Your task to perform on an android device: turn off notifications settings in the gmail app Image 0: 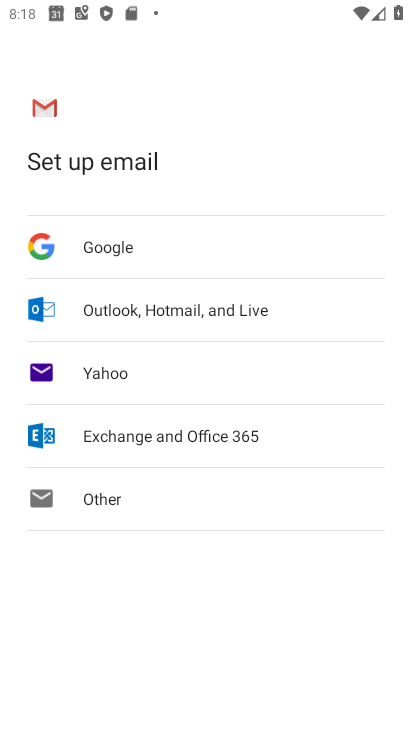
Step 0: press home button
Your task to perform on an android device: turn off notifications settings in the gmail app Image 1: 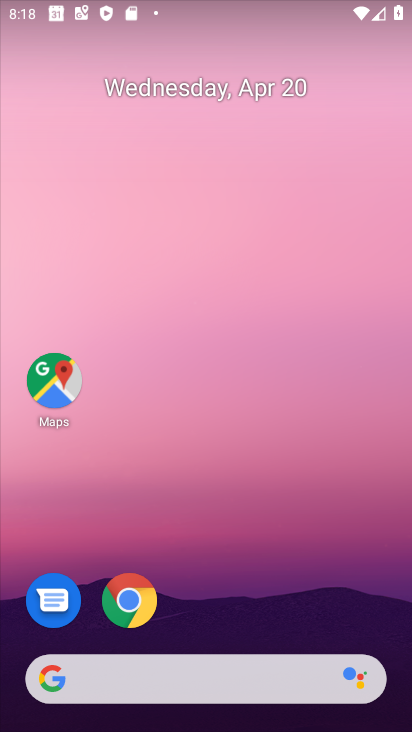
Step 1: drag from (204, 607) to (282, 180)
Your task to perform on an android device: turn off notifications settings in the gmail app Image 2: 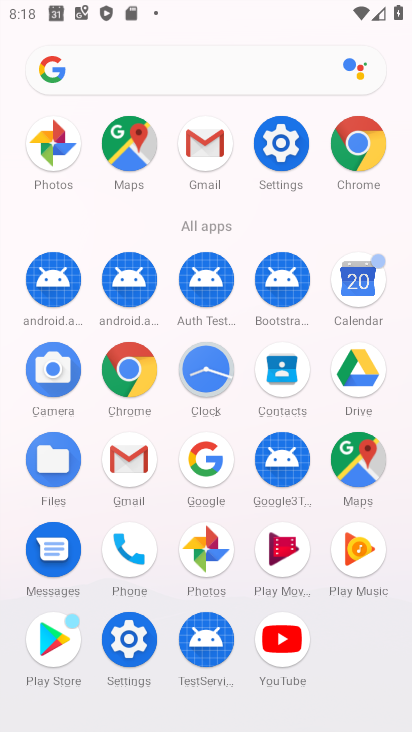
Step 2: click (201, 157)
Your task to perform on an android device: turn off notifications settings in the gmail app Image 3: 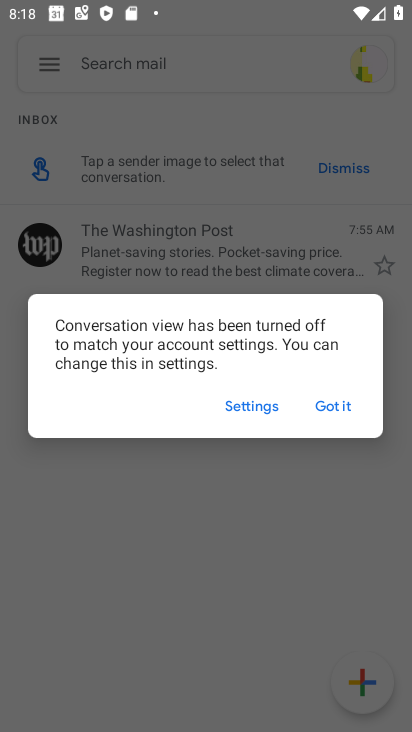
Step 3: click (342, 400)
Your task to perform on an android device: turn off notifications settings in the gmail app Image 4: 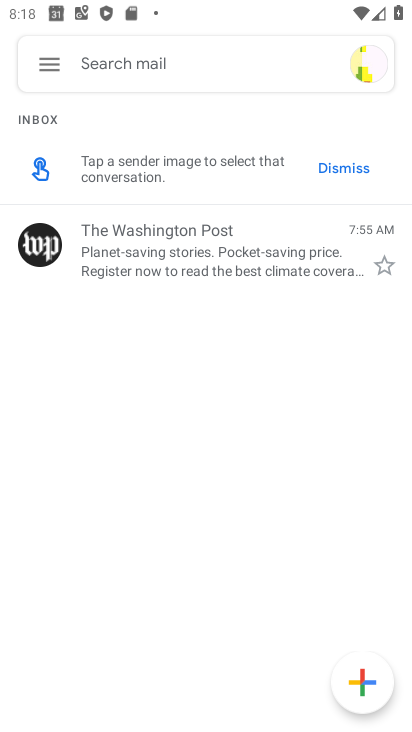
Step 4: click (42, 68)
Your task to perform on an android device: turn off notifications settings in the gmail app Image 5: 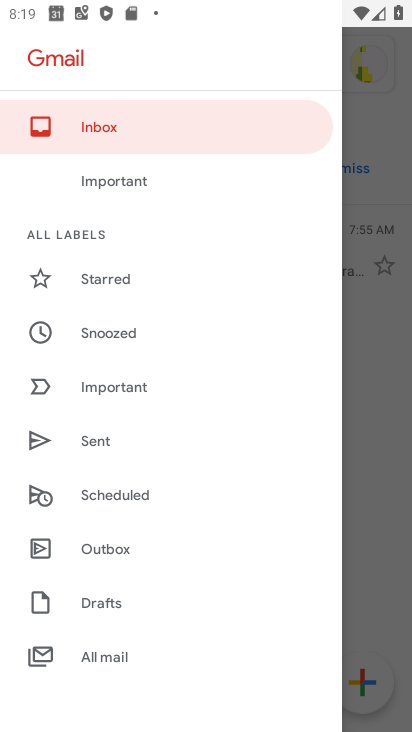
Step 5: drag from (164, 663) to (196, 166)
Your task to perform on an android device: turn off notifications settings in the gmail app Image 6: 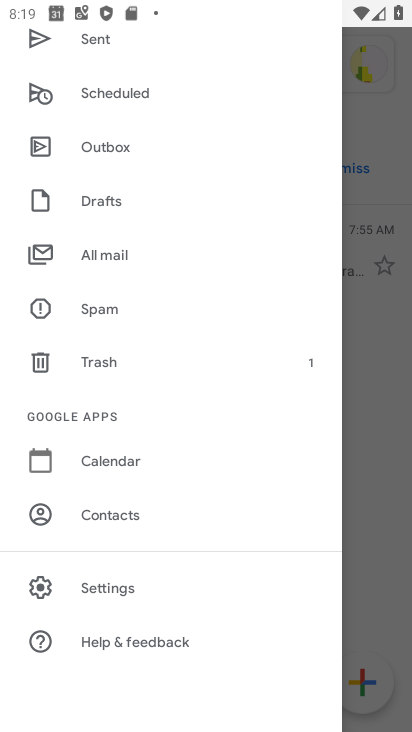
Step 6: click (95, 592)
Your task to perform on an android device: turn off notifications settings in the gmail app Image 7: 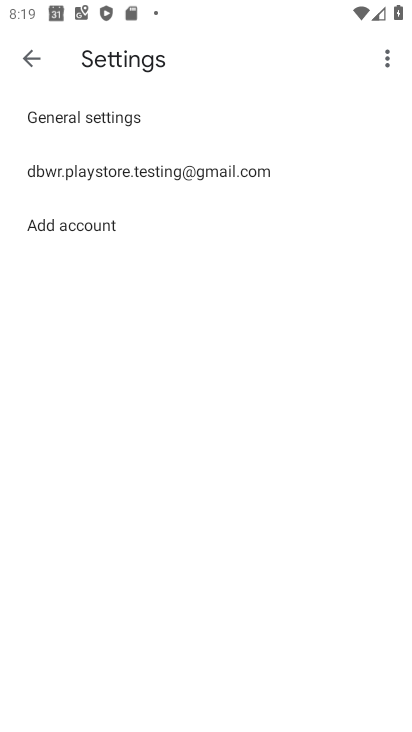
Step 7: click (100, 172)
Your task to perform on an android device: turn off notifications settings in the gmail app Image 8: 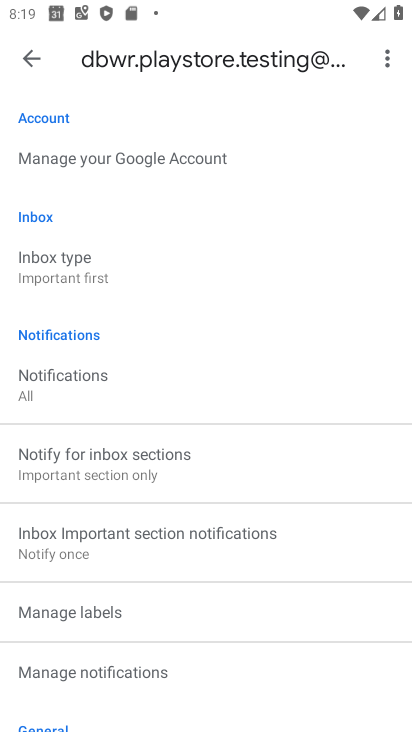
Step 8: click (69, 389)
Your task to perform on an android device: turn off notifications settings in the gmail app Image 9: 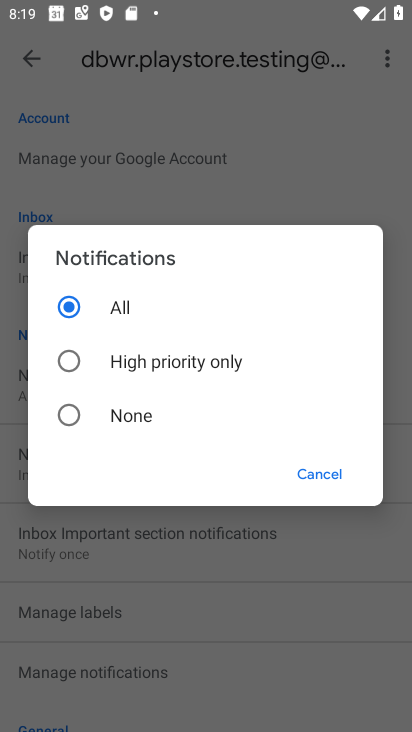
Step 9: click (134, 427)
Your task to perform on an android device: turn off notifications settings in the gmail app Image 10: 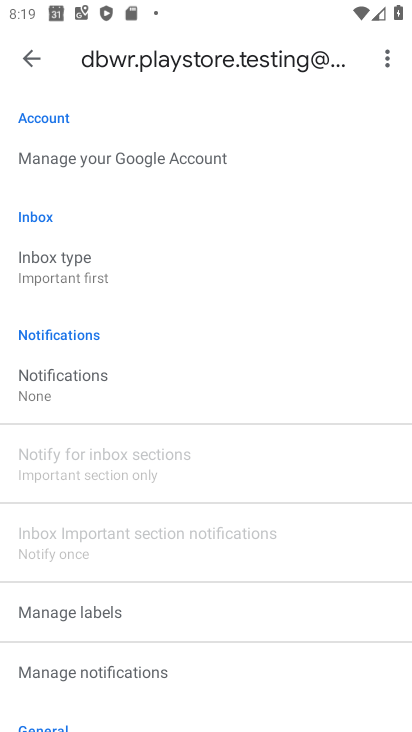
Step 10: task complete